Your task to perform on an android device: Open Google Chrome and open the bookmarks view Image 0: 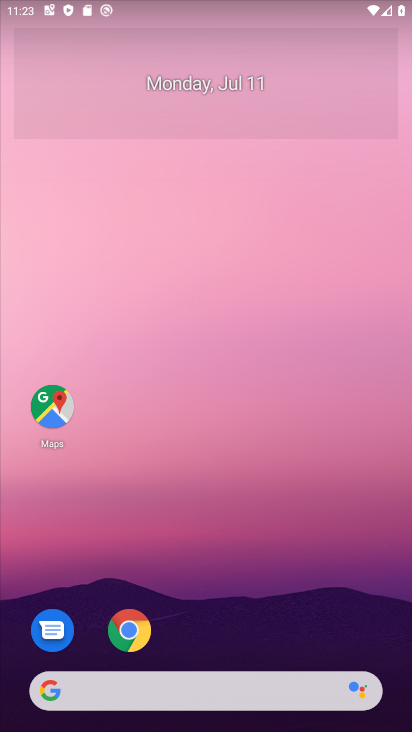
Step 0: click (130, 630)
Your task to perform on an android device: Open Google Chrome and open the bookmarks view Image 1: 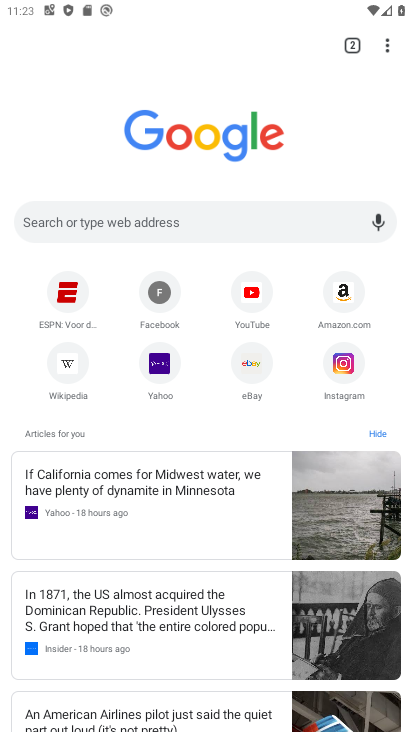
Step 1: click (384, 46)
Your task to perform on an android device: Open Google Chrome and open the bookmarks view Image 2: 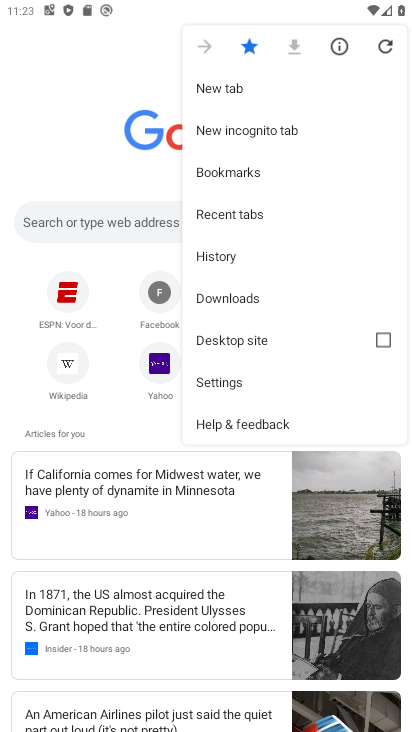
Step 2: click (224, 176)
Your task to perform on an android device: Open Google Chrome and open the bookmarks view Image 3: 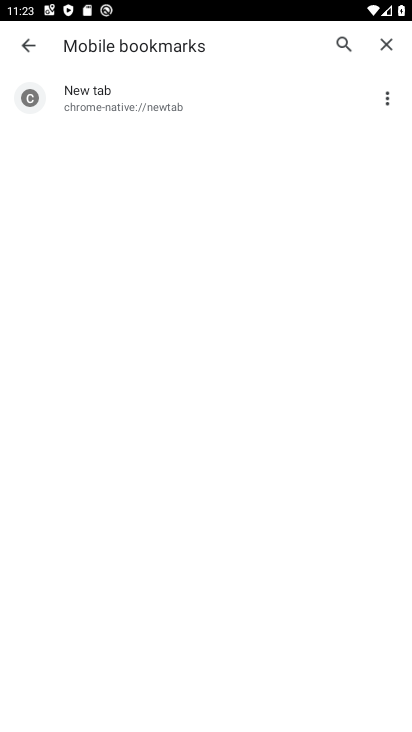
Step 3: task complete